Your task to perform on an android device: choose inbox layout in the gmail app Image 0: 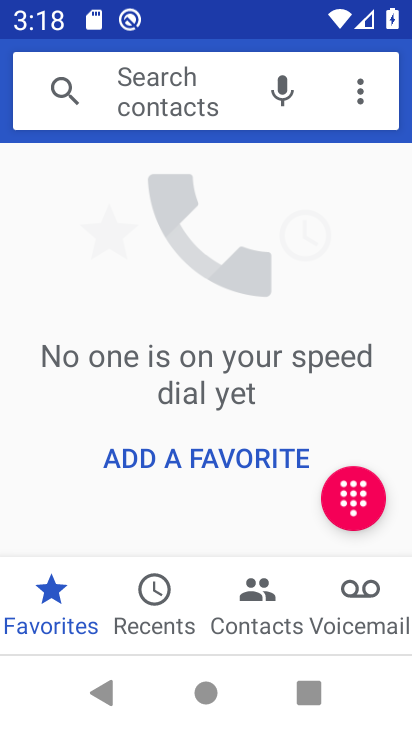
Step 0: press home button
Your task to perform on an android device: choose inbox layout in the gmail app Image 1: 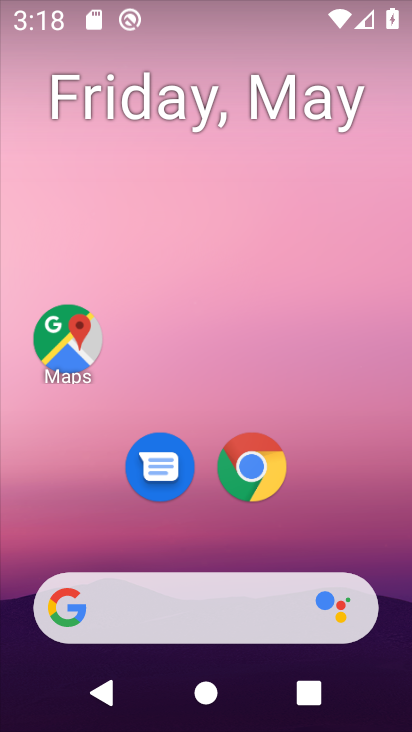
Step 1: drag from (301, 514) to (249, 75)
Your task to perform on an android device: choose inbox layout in the gmail app Image 2: 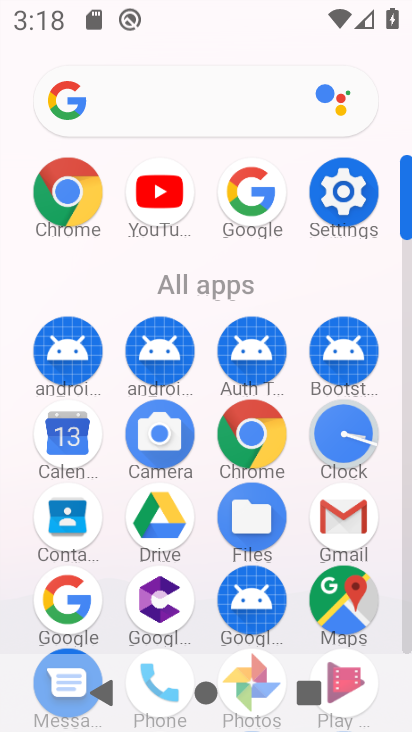
Step 2: click (336, 526)
Your task to perform on an android device: choose inbox layout in the gmail app Image 3: 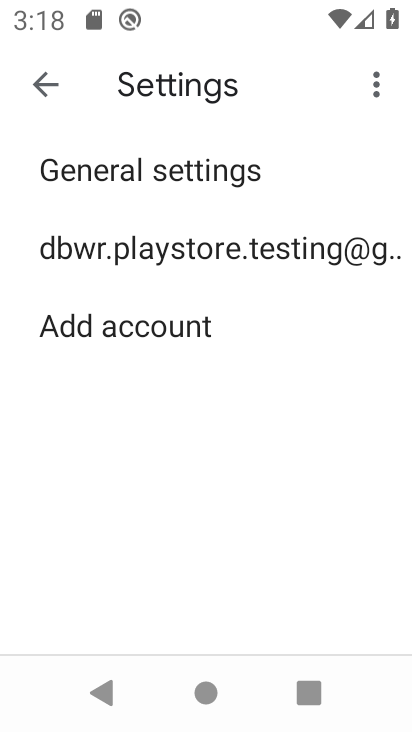
Step 3: click (245, 248)
Your task to perform on an android device: choose inbox layout in the gmail app Image 4: 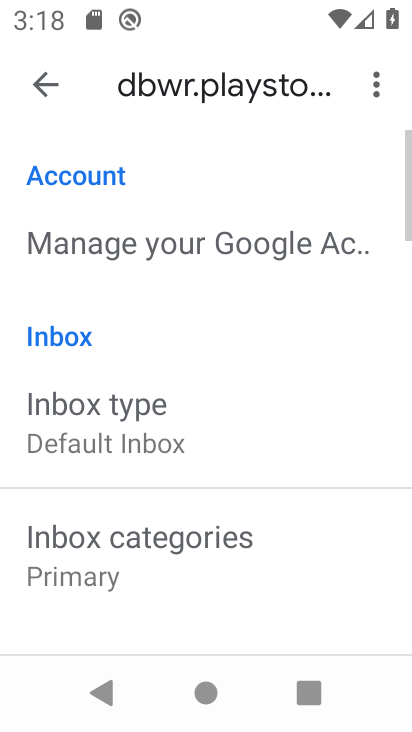
Step 4: click (164, 434)
Your task to perform on an android device: choose inbox layout in the gmail app Image 5: 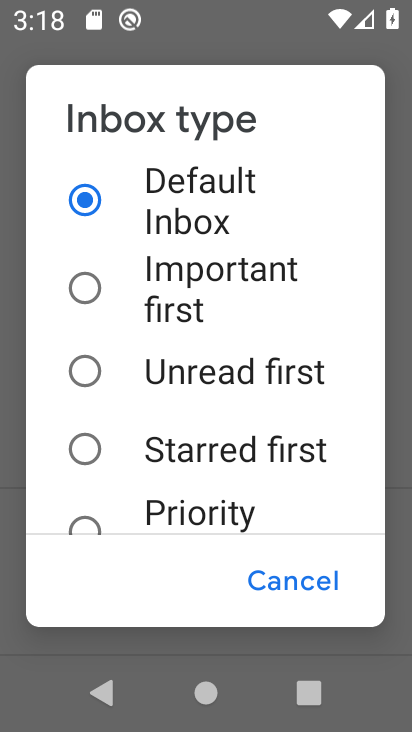
Step 5: click (160, 287)
Your task to perform on an android device: choose inbox layout in the gmail app Image 6: 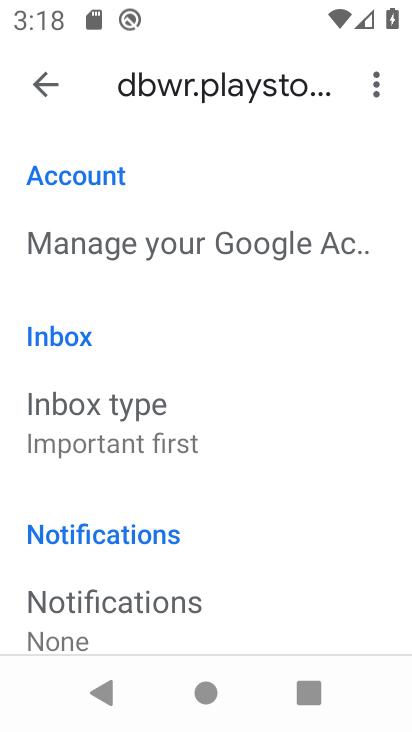
Step 6: task complete